Your task to perform on an android device: turn on wifi Image 0: 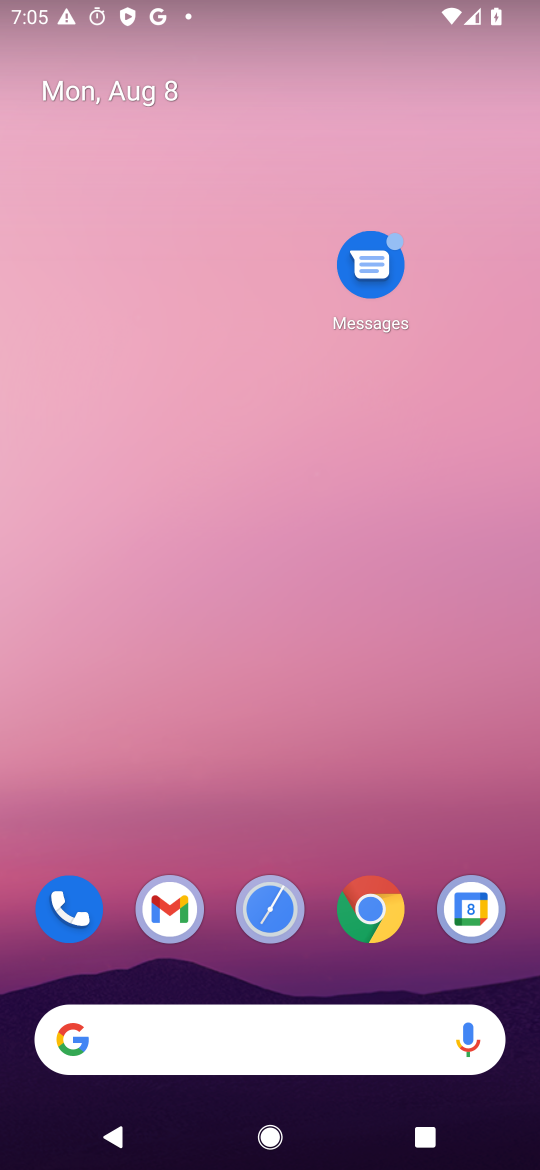
Step 0: drag from (255, 1057) to (319, 90)
Your task to perform on an android device: turn on wifi Image 1: 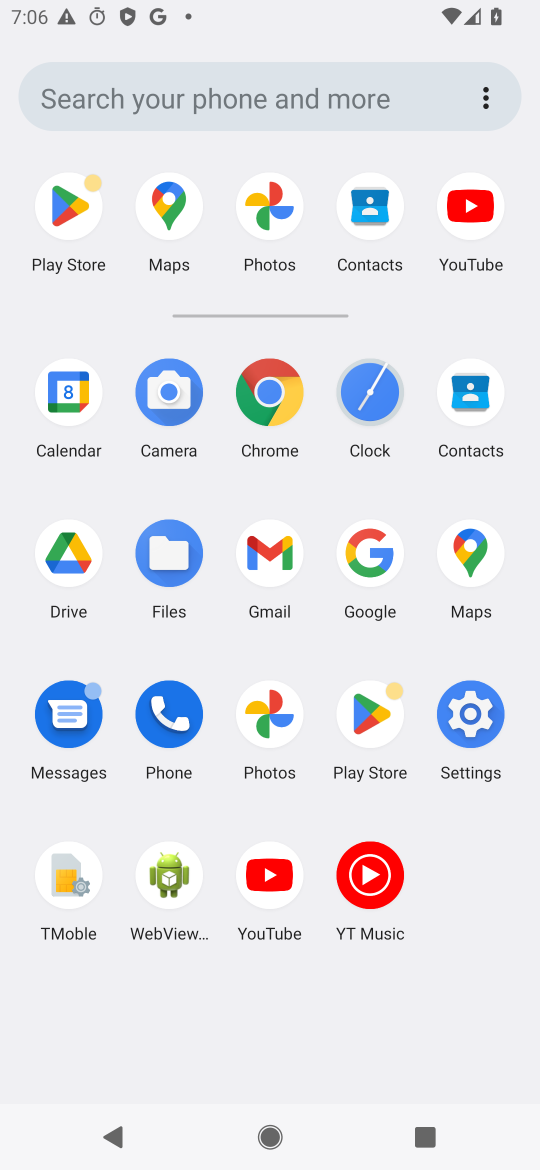
Step 1: click (469, 723)
Your task to perform on an android device: turn on wifi Image 2: 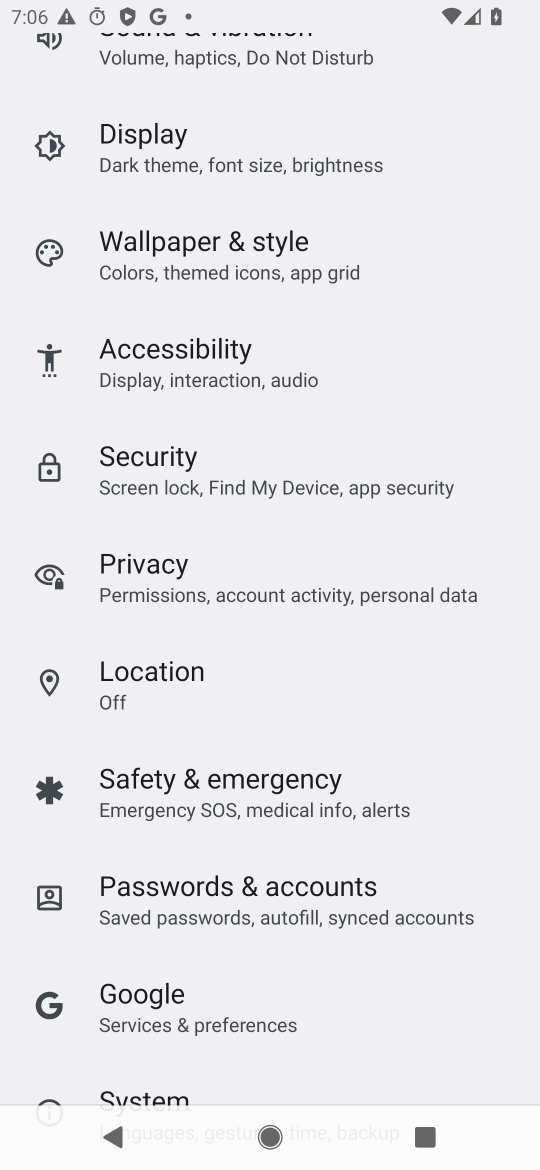
Step 2: drag from (430, 102) to (333, 931)
Your task to perform on an android device: turn on wifi Image 3: 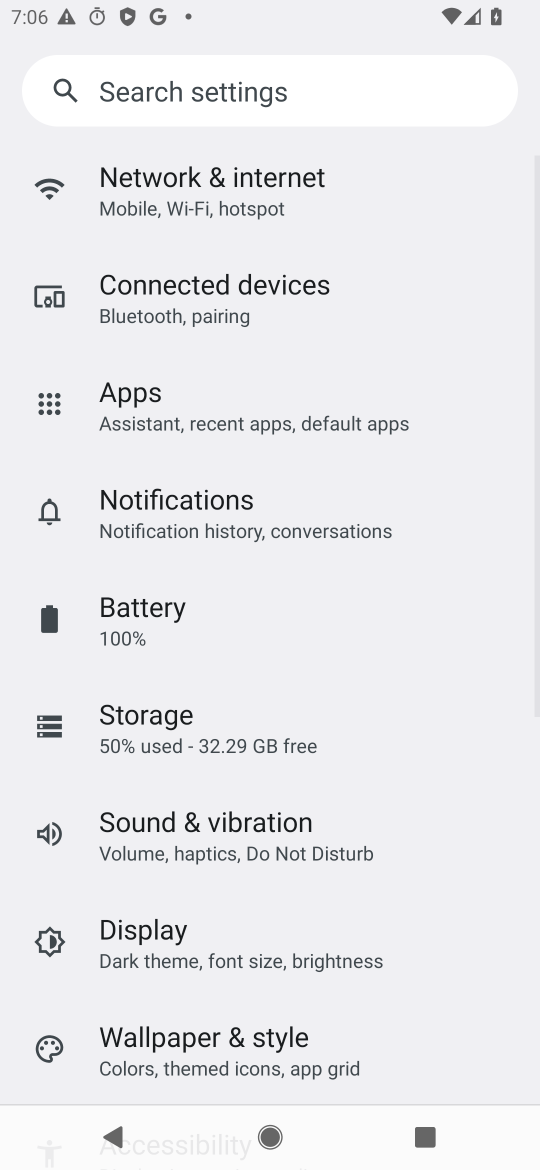
Step 3: drag from (392, 266) to (299, 940)
Your task to perform on an android device: turn on wifi Image 4: 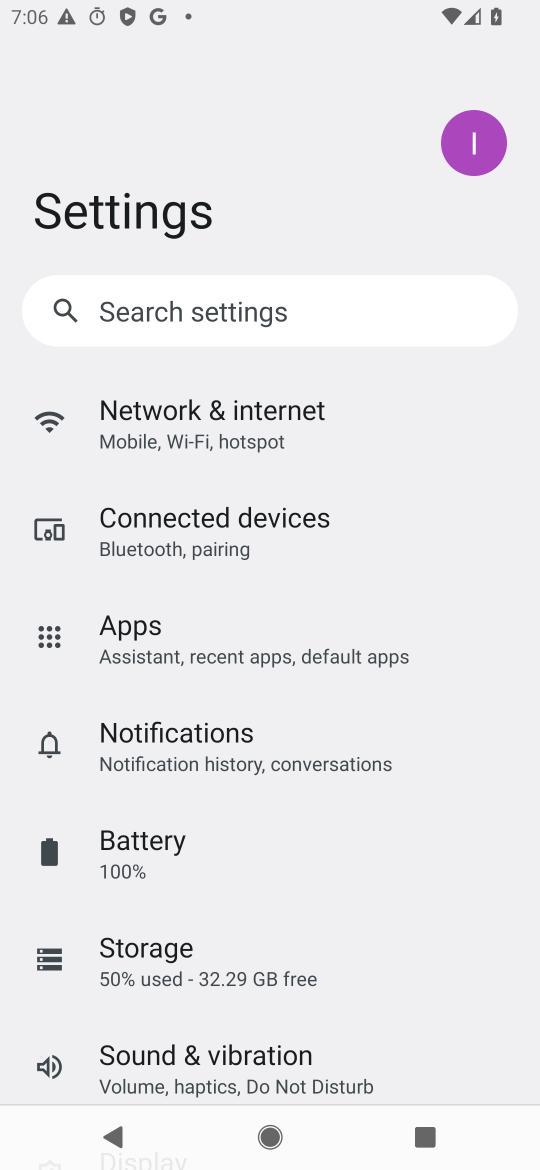
Step 4: click (208, 420)
Your task to perform on an android device: turn on wifi Image 5: 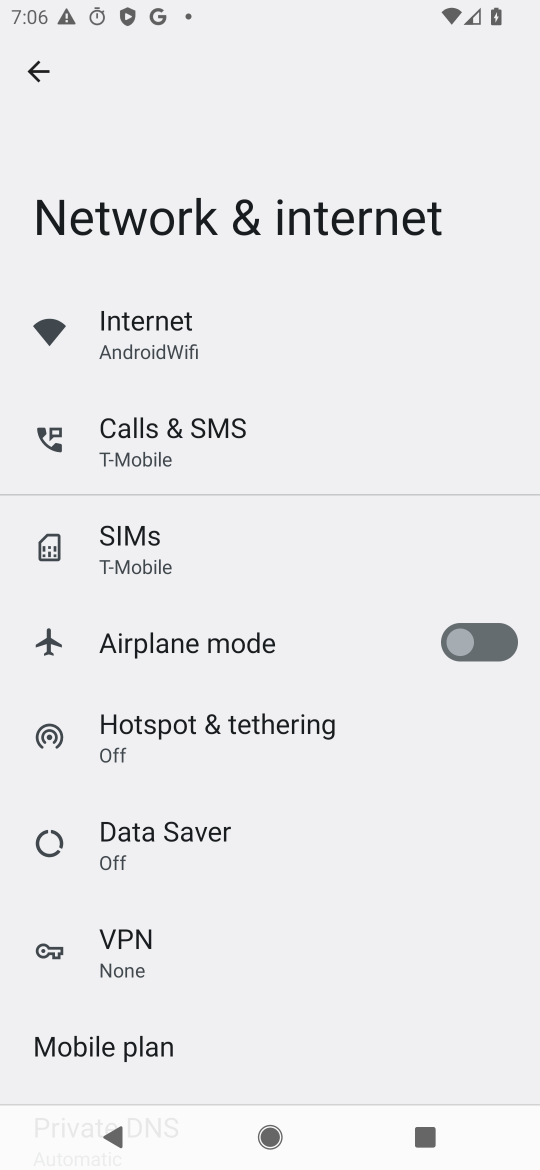
Step 5: click (168, 345)
Your task to perform on an android device: turn on wifi Image 6: 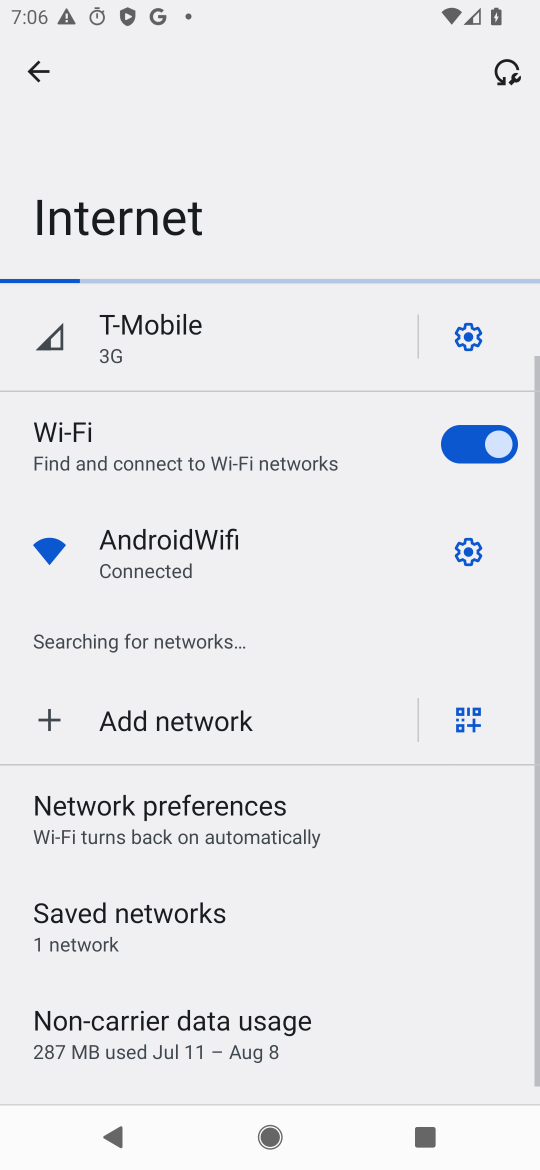
Step 6: task complete